Your task to perform on an android device: Search for pizza restaurants on Maps Image 0: 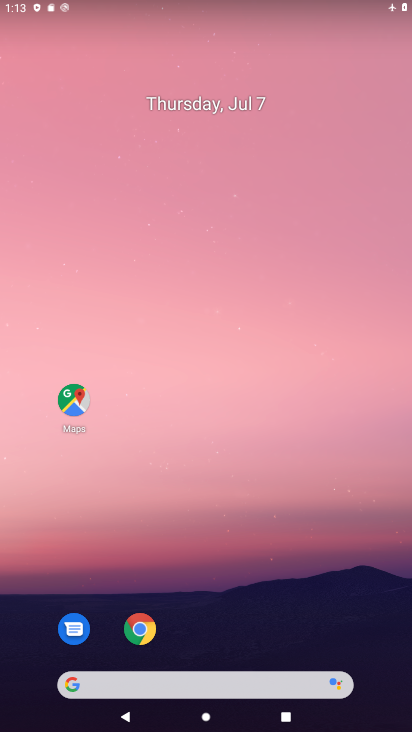
Step 0: drag from (249, 634) to (266, 18)
Your task to perform on an android device: Search for pizza restaurants on Maps Image 1: 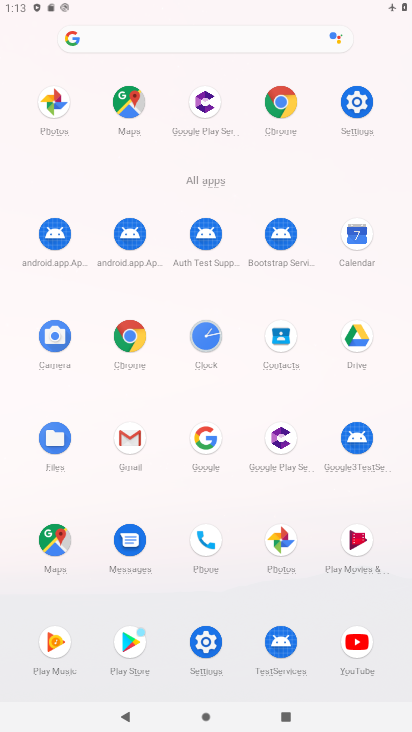
Step 1: click (49, 539)
Your task to perform on an android device: Search for pizza restaurants on Maps Image 2: 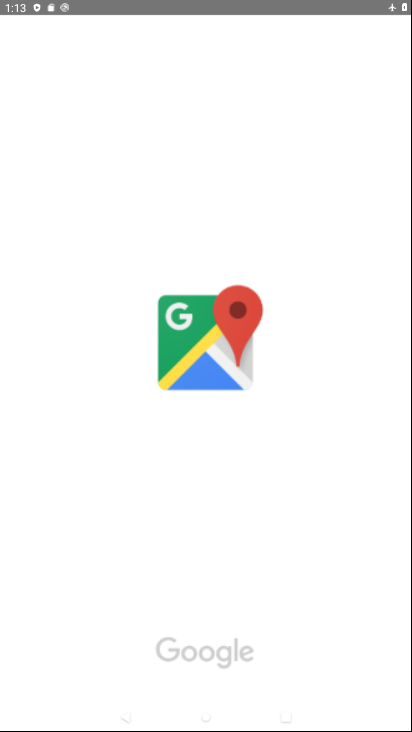
Step 2: drag from (226, 9) to (123, 577)
Your task to perform on an android device: Search for pizza restaurants on Maps Image 3: 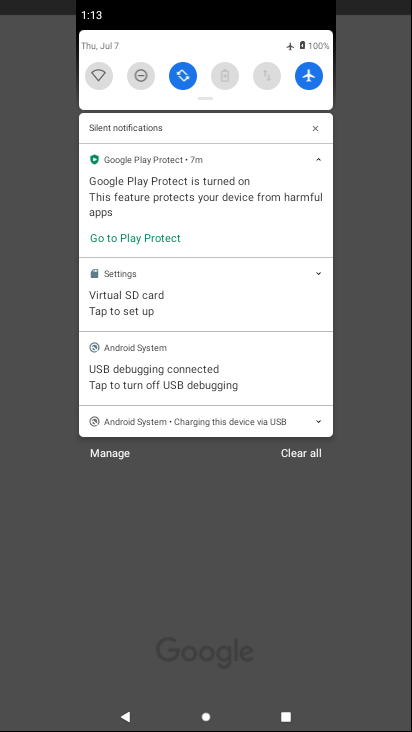
Step 3: click (308, 83)
Your task to perform on an android device: Search for pizza restaurants on Maps Image 4: 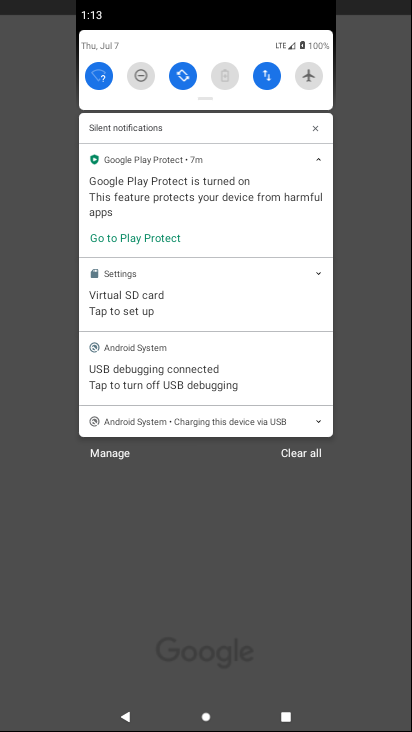
Step 4: click (366, 377)
Your task to perform on an android device: Search for pizza restaurants on Maps Image 5: 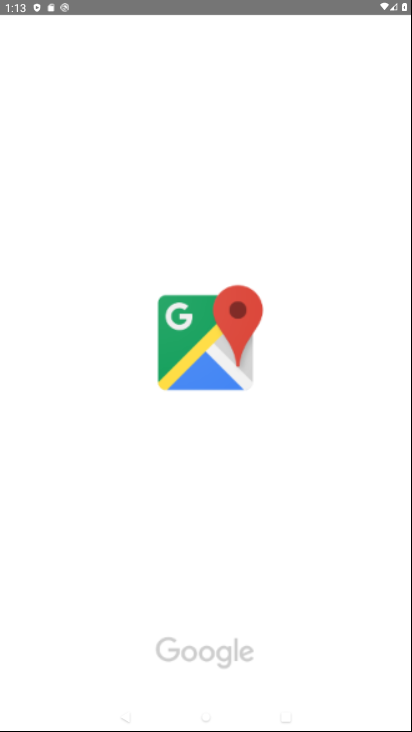
Step 5: task complete